Your task to perform on an android device: manage bookmarks in the chrome app Image 0: 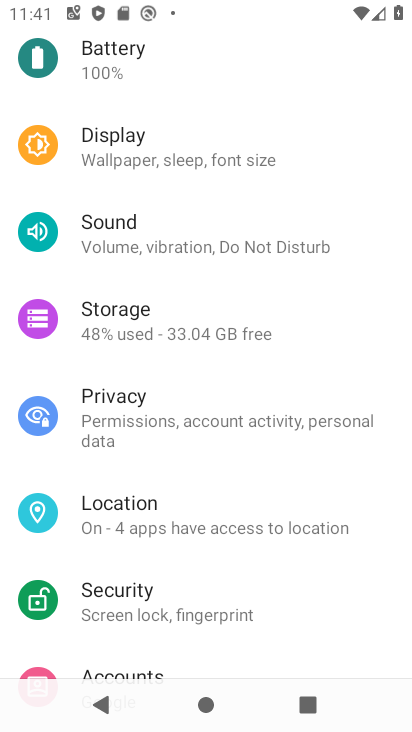
Step 0: press back button
Your task to perform on an android device: manage bookmarks in the chrome app Image 1: 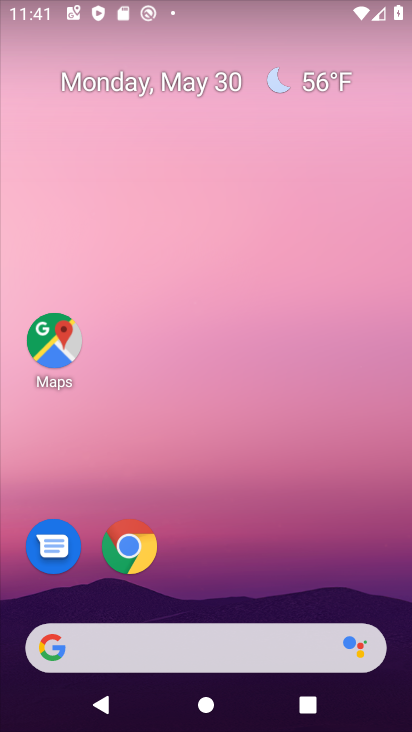
Step 1: click (129, 546)
Your task to perform on an android device: manage bookmarks in the chrome app Image 2: 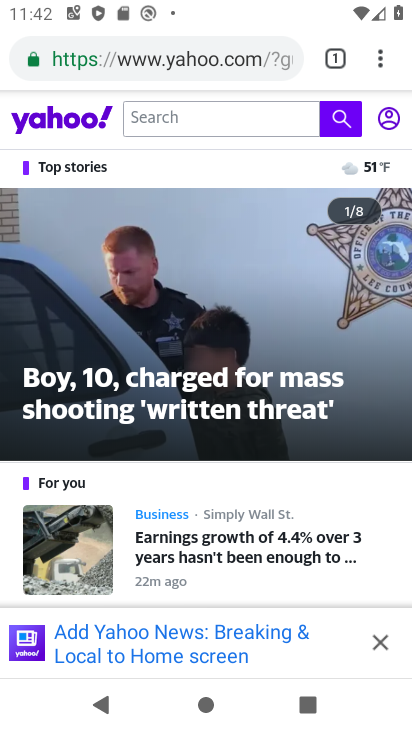
Step 2: click (381, 59)
Your task to perform on an android device: manage bookmarks in the chrome app Image 3: 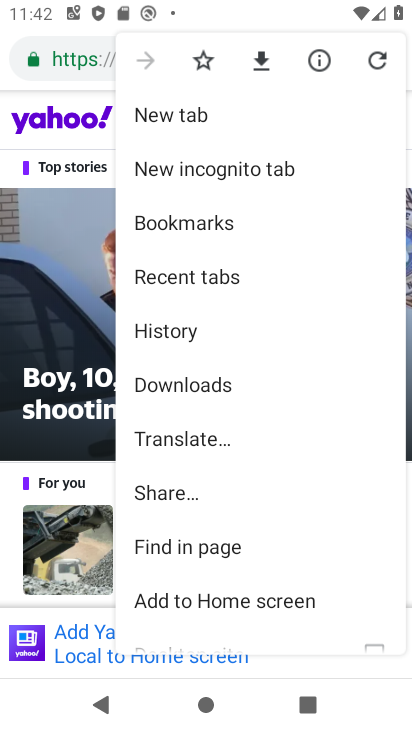
Step 3: click (223, 215)
Your task to perform on an android device: manage bookmarks in the chrome app Image 4: 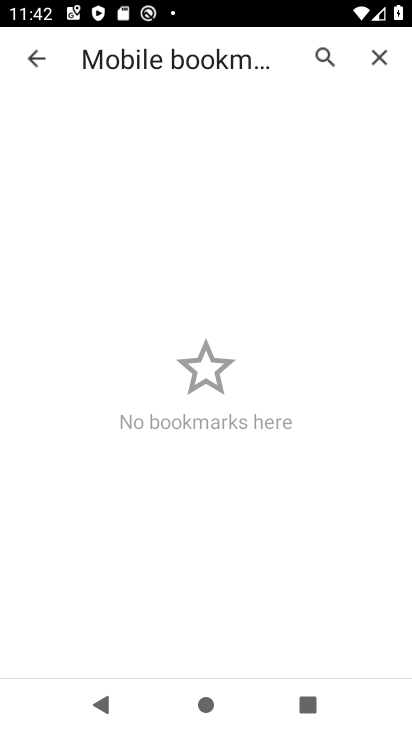
Step 4: task complete